Your task to perform on an android device: check storage Image 0: 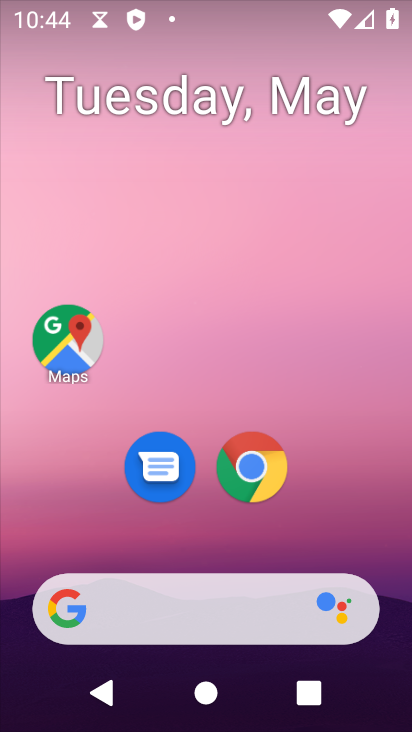
Step 0: drag from (399, 573) to (311, 109)
Your task to perform on an android device: check storage Image 1: 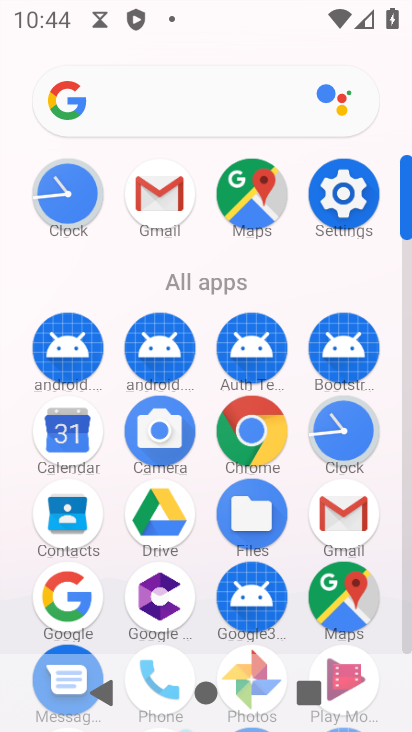
Step 1: click (342, 191)
Your task to perform on an android device: check storage Image 2: 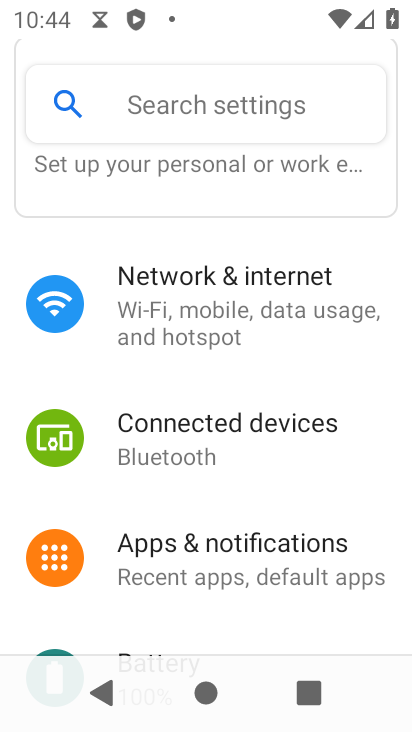
Step 2: drag from (255, 615) to (256, 117)
Your task to perform on an android device: check storage Image 3: 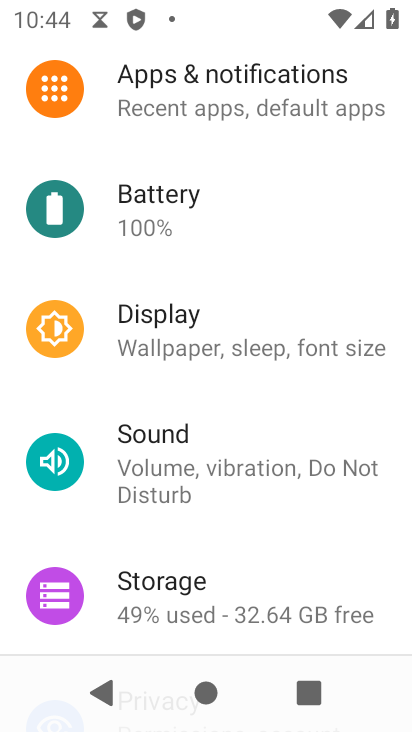
Step 3: click (200, 593)
Your task to perform on an android device: check storage Image 4: 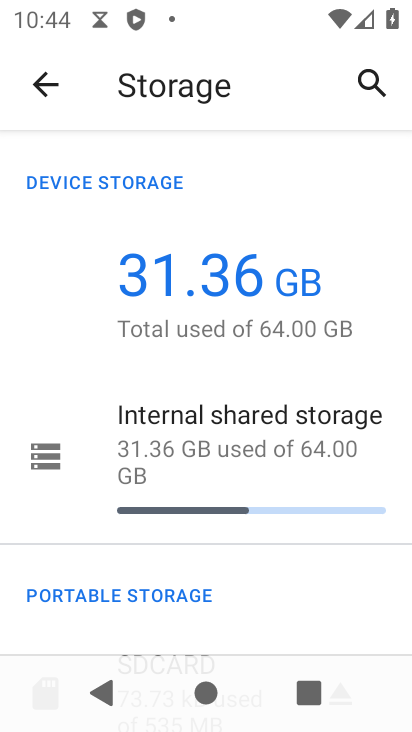
Step 4: task complete